Your task to perform on an android device: Open network settings Image 0: 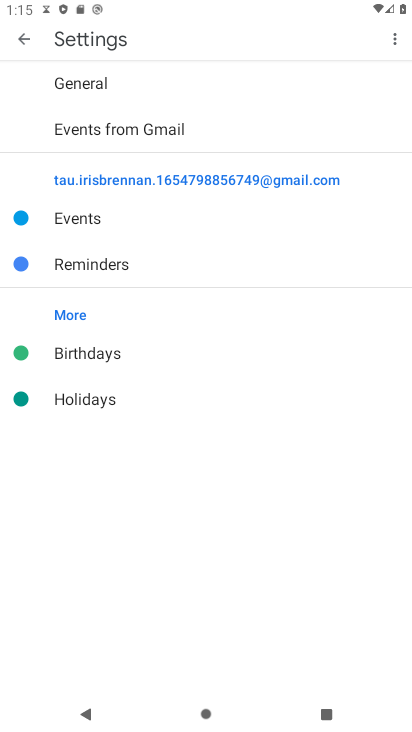
Step 0: press home button
Your task to perform on an android device: Open network settings Image 1: 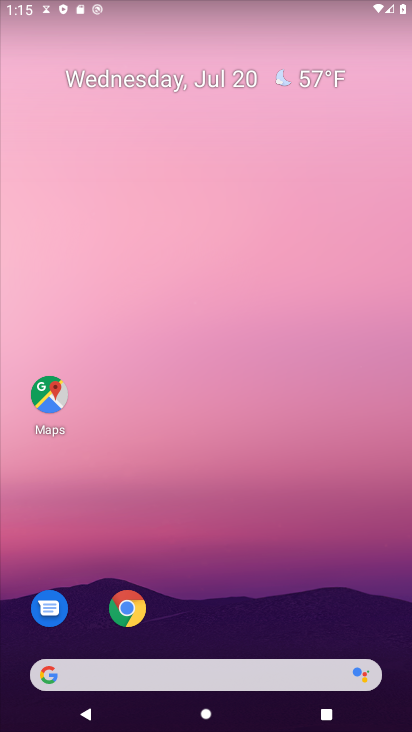
Step 1: drag from (181, 669) to (233, 184)
Your task to perform on an android device: Open network settings Image 2: 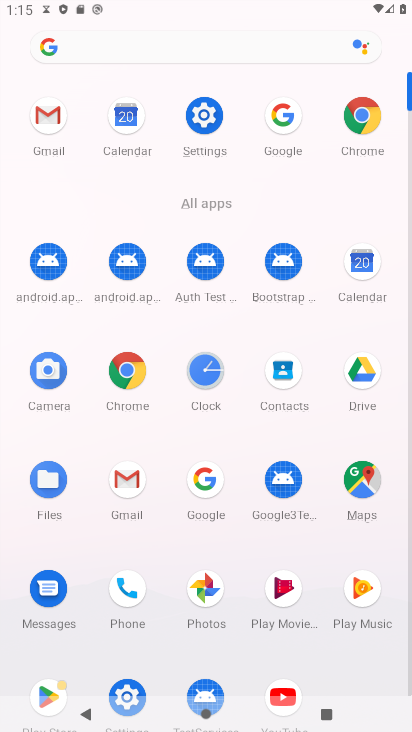
Step 2: click (204, 116)
Your task to perform on an android device: Open network settings Image 3: 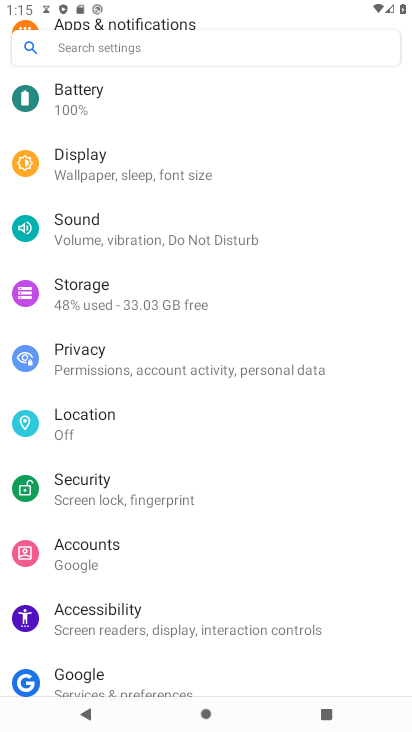
Step 3: drag from (193, 209) to (151, 336)
Your task to perform on an android device: Open network settings Image 4: 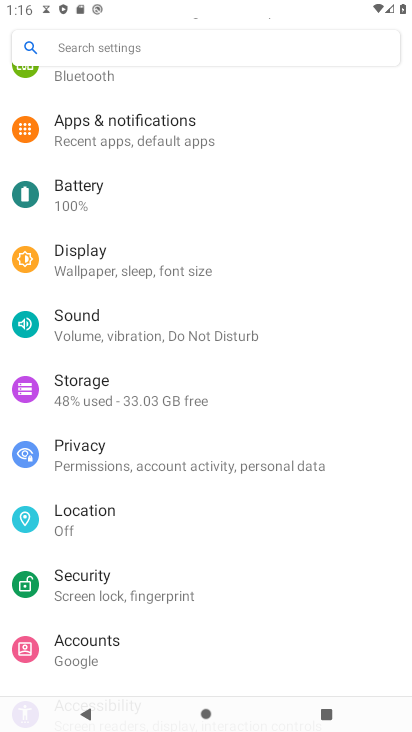
Step 4: drag from (131, 183) to (154, 343)
Your task to perform on an android device: Open network settings Image 5: 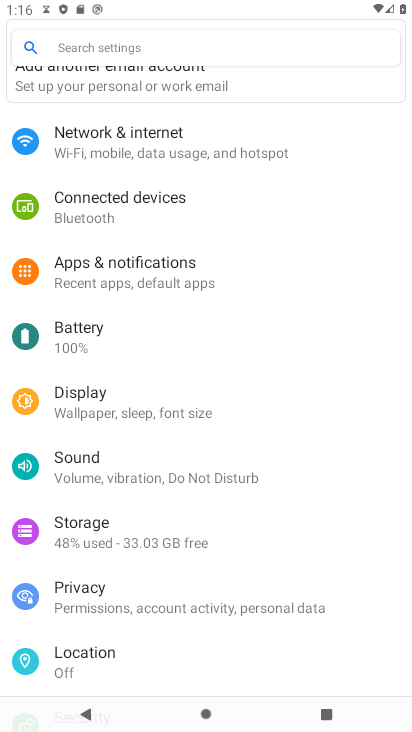
Step 5: click (123, 142)
Your task to perform on an android device: Open network settings Image 6: 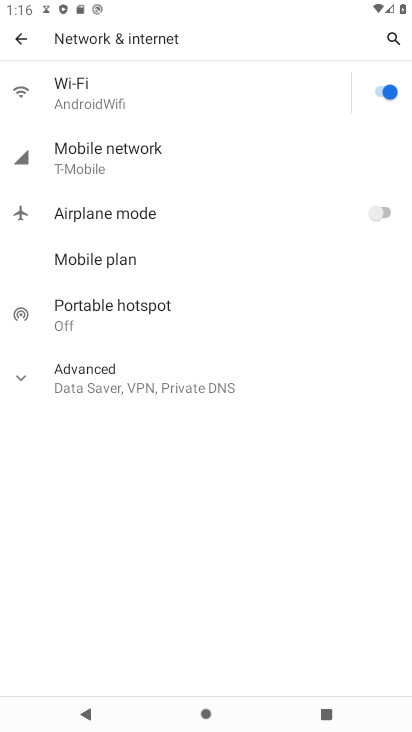
Step 6: task complete